Your task to perform on an android device: manage bookmarks in the chrome app Image 0: 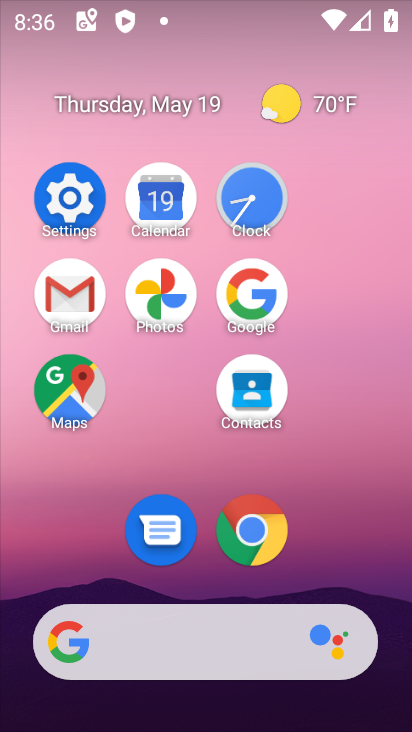
Step 0: click (251, 543)
Your task to perform on an android device: manage bookmarks in the chrome app Image 1: 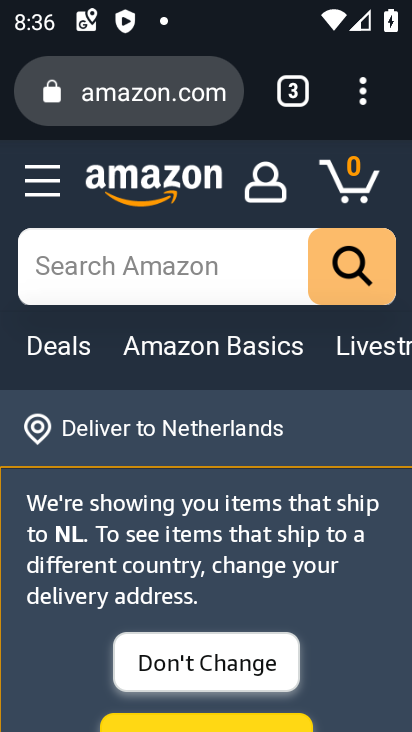
Step 1: click (373, 73)
Your task to perform on an android device: manage bookmarks in the chrome app Image 2: 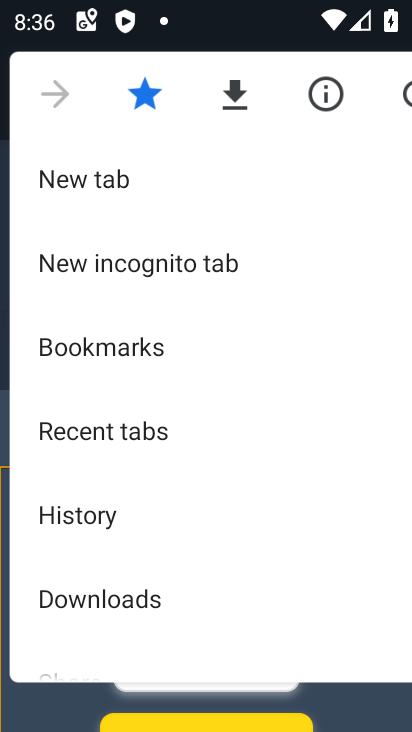
Step 2: click (94, 371)
Your task to perform on an android device: manage bookmarks in the chrome app Image 3: 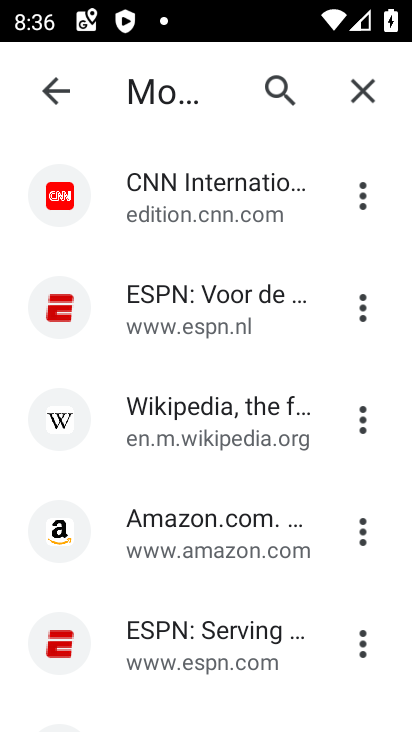
Step 3: click (356, 190)
Your task to perform on an android device: manage bookmarks in the chrome app Image 4: 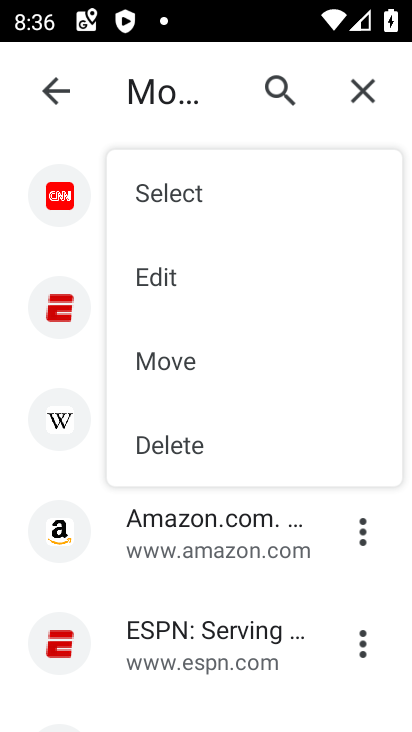
Step 4: click (187, 439)
Your task to perform on an android device: manage bookmarks in the chrome app Image 5: 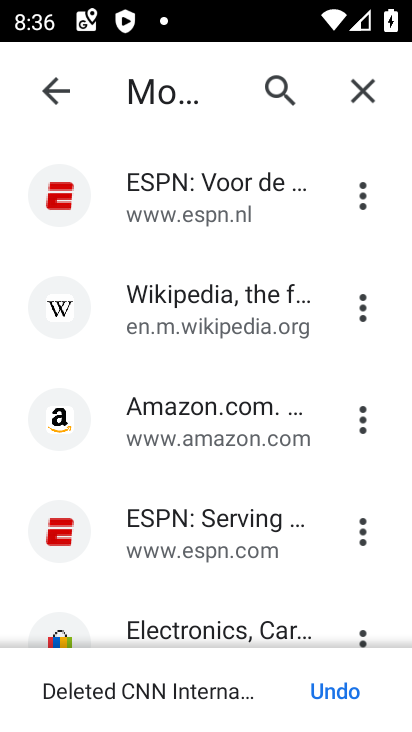
Step 5: task complete